Your task to perform on an android device: Open internet settings Image 0: 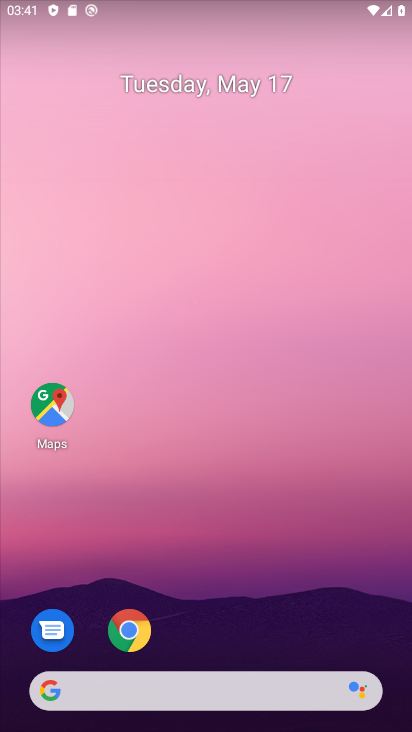
Step 0: drag from (207, 543) to (272, 110)
Your task to perform on an android device: Open internet settings Image 1: 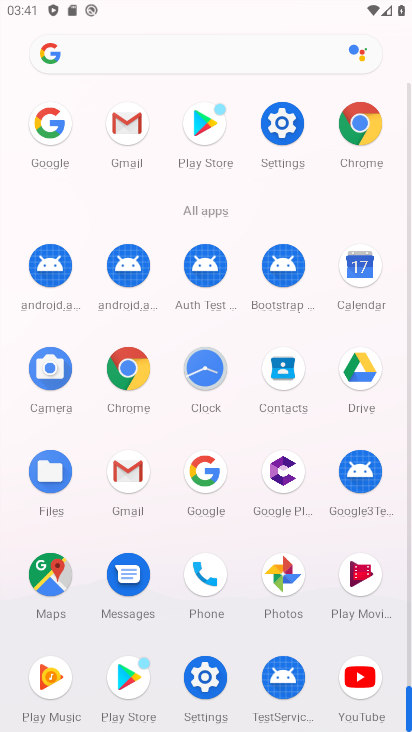
Step 1: click (200, 682)
Your task to perform on an android device: Open internet settings Image 2: 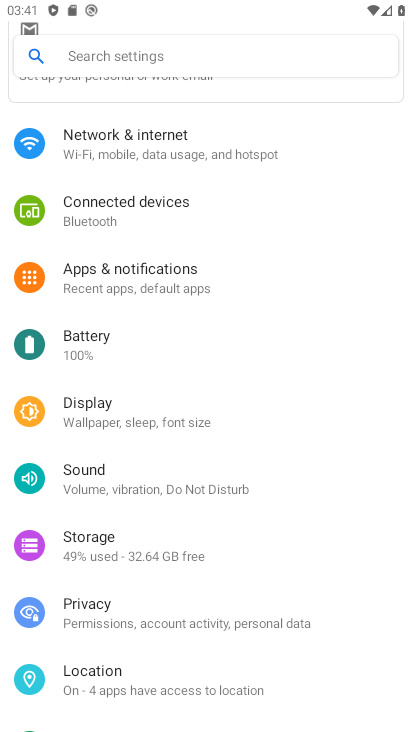
Step 2: click (294, 169)
Your task to perform on an android device: Open internet settings Image 3: 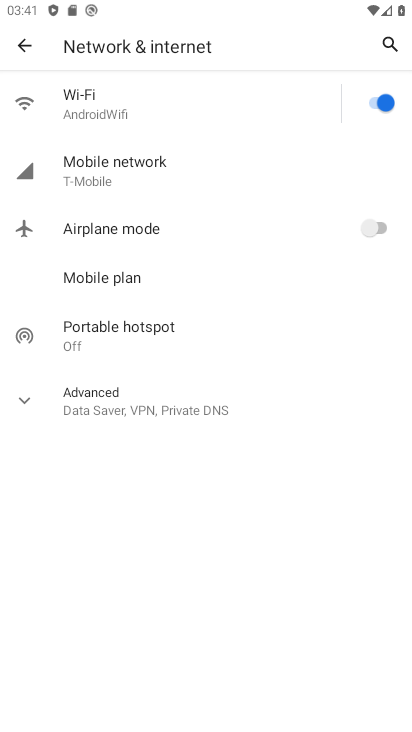
Step 3: click (275, 175)
Your task to perform on an android device: Open internet settings Image 4: 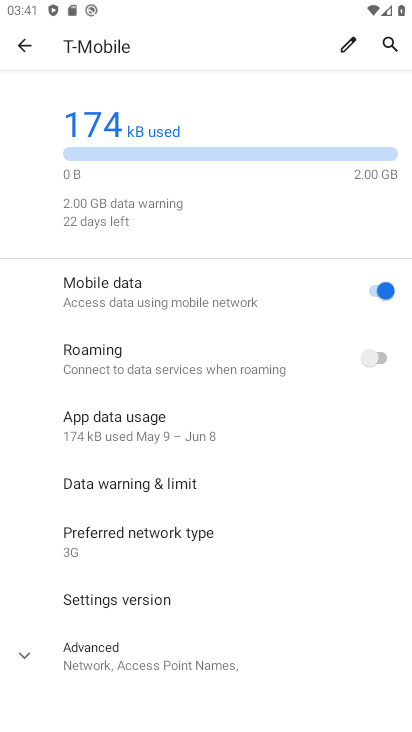
Step 4: task complete